Your task to perform on an android device: Go to privacy settings Image 0: 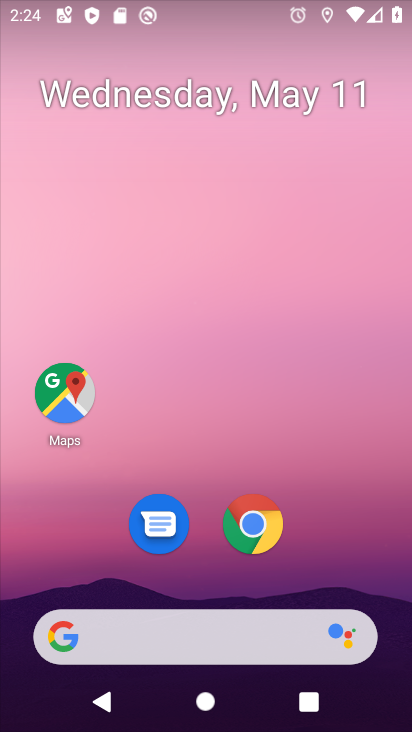
Step 0: drag from (321, 519) to (320, 68)
Your task to perform on an android device: Go to privacy settings Image 1: 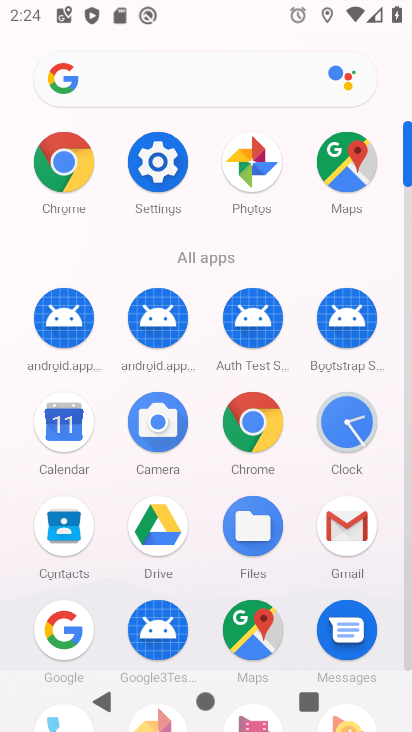
Step 1: click (164, 160)
Your task to perform on an android device: Go to privacy settings Image 2: 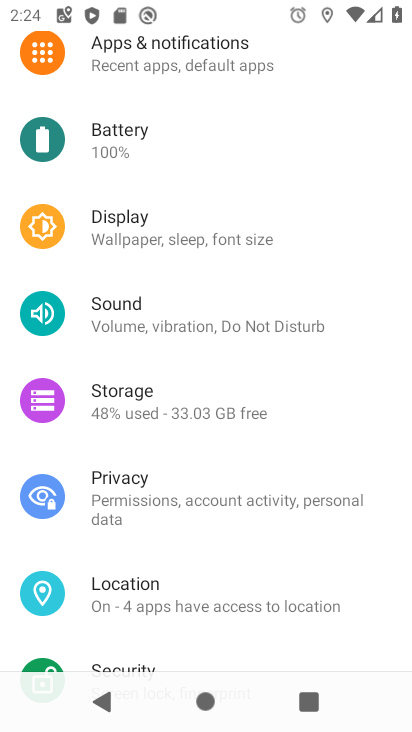
Step 2: click (157, 483)
Your task to perform on an android device: Go to privacy settings Image 3: 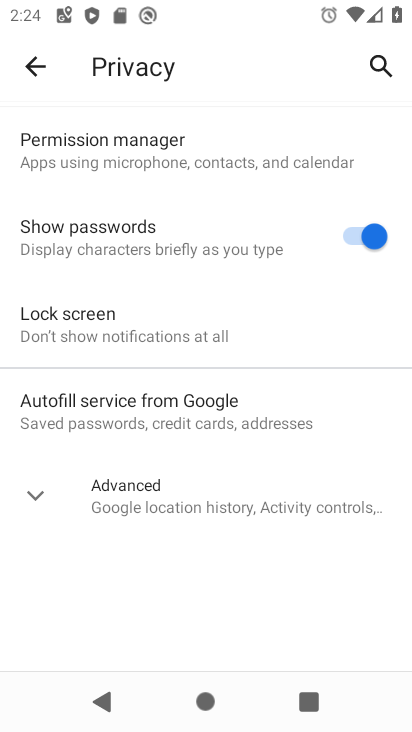
Step 3: task complete